Your task to perform on an android device: Go to accessibility settings Image 0: 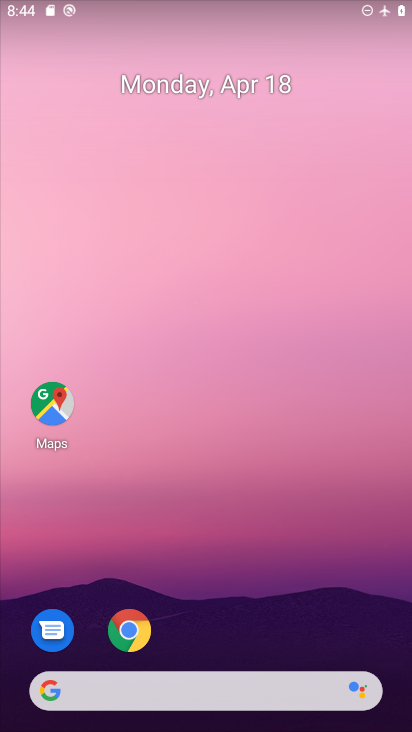
Step 0: drag from (213, 641) to (311, 104)
Your task to perform on an android device: Go to accessibility settings Image 1: 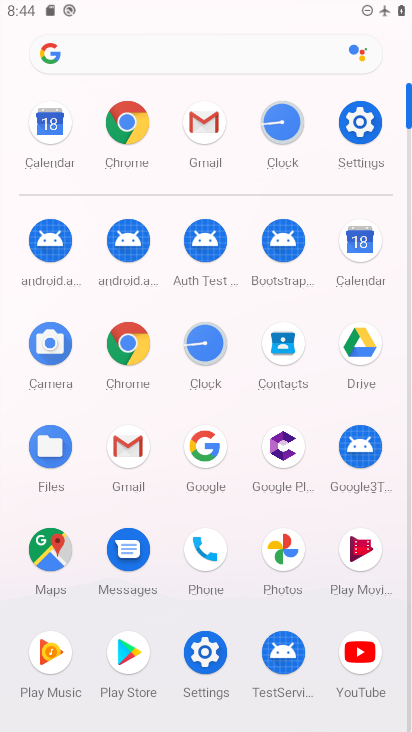
Step 1: click (366, 118)
Your task to perform on an android device: Go to accessibility settings Image 2: 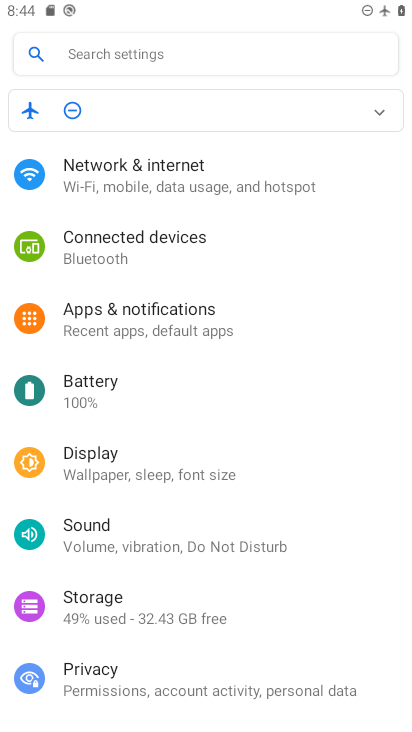
Step 2: drag from (196, 584) to (255, 172)
Your task to perform on an android device: Go to accessibility settings Image 3: 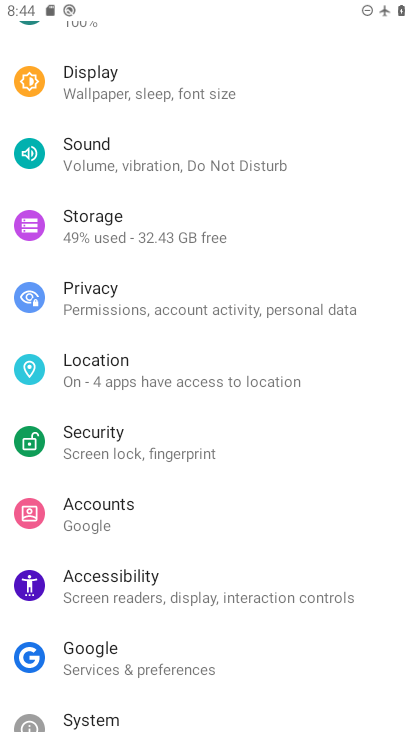
Step 3: drag from (191, 667) to (311, 147)
Your task to perform on an android device: Go to accessibility settings Image 4: 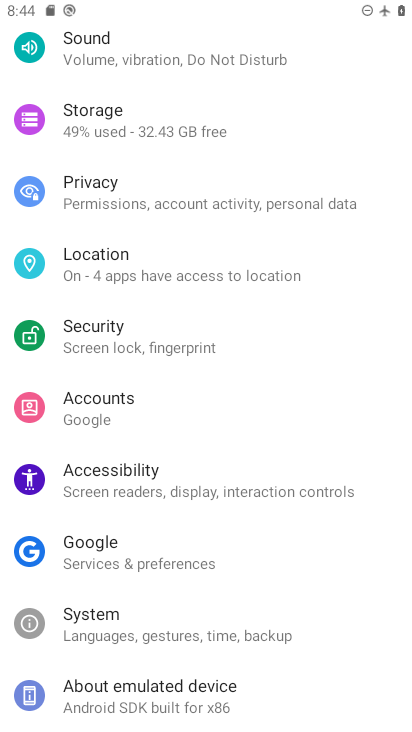
Step 4: click (175, 481)
Your task to perform on an android device: Go to accessibility settings Image 5: 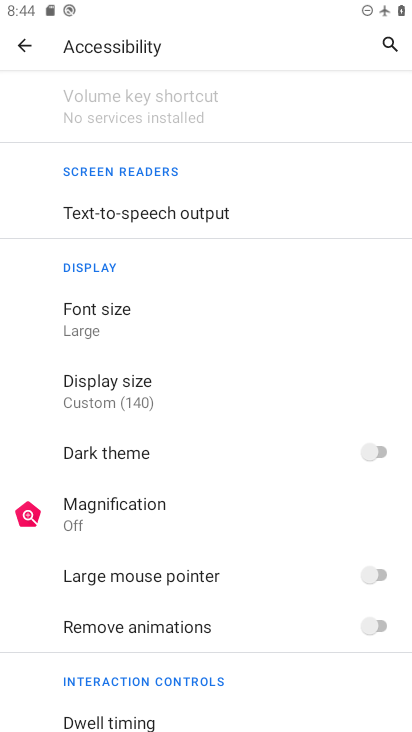
Step 5: task complete